Your task to perform on an android device: move a message to another label in the gmail app Image 0: 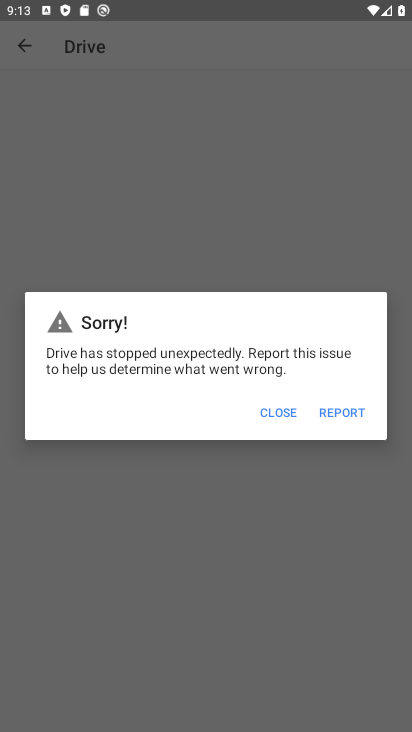
Step 0: press home button
Your task to perform on an android device: move a message to another label in the gmail app Image 1: 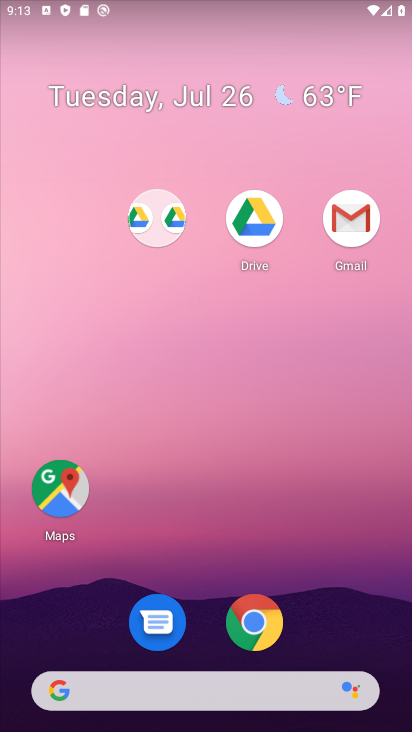
Step 1: click (355, 247)
Your task to perform on an android device: move a message to another label in the gmail app Image 2: 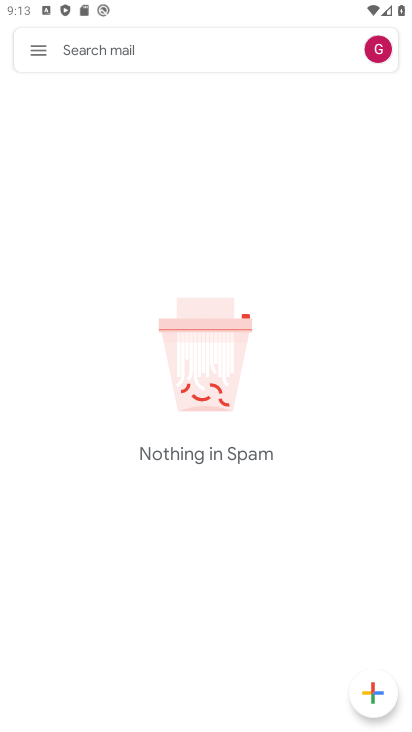
Step 2: click (39, 58)
Your task to perform on an android device: move a message to another label in the gmail app Image 3: 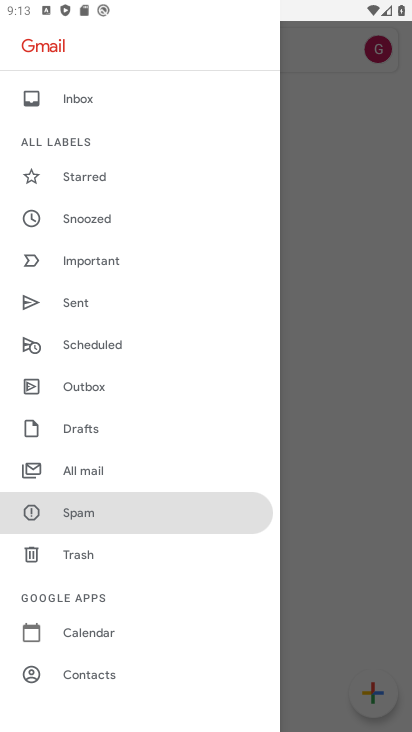
Step 3: click (51, 91)
Your task to perform on an android device: move a message to another label in the gmail app Image 4: 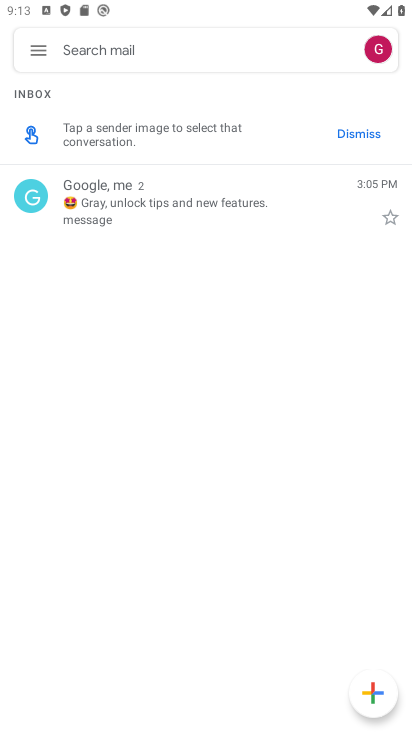
Step 4: click (327, 203)
Your task to perform on an android device: move a message to another label in the gmail app Image 5: 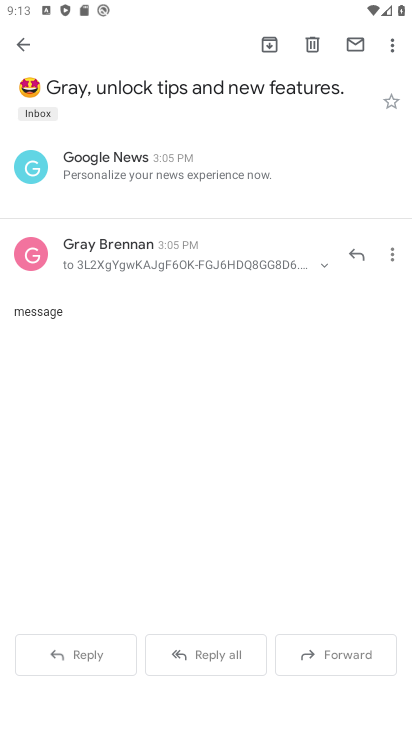
Step 5: click (396, 46)
Your task to perform on an android device: move a message to another label in the gmail app Image 6: 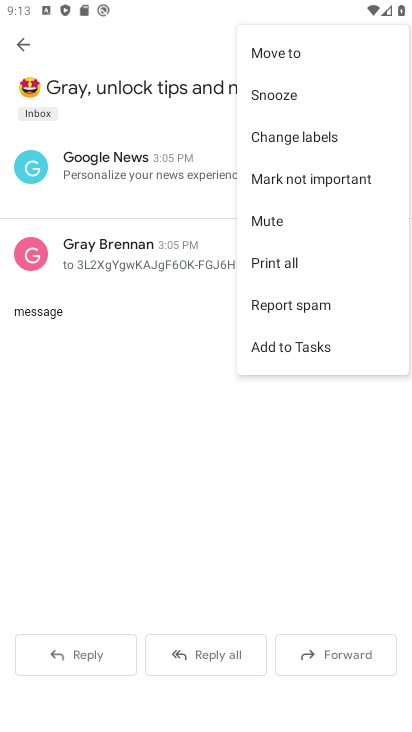
Step 6: click (258, 60)
Your task to perform on an android device: move a message to another label in the gmail app Image 7: 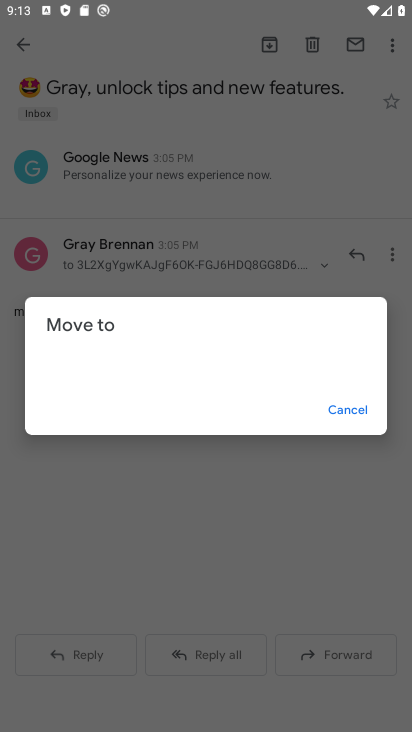
Step 7: click (169, 355)
Your task to perform on an android device: move a message to another label in the gmail app Image 8: 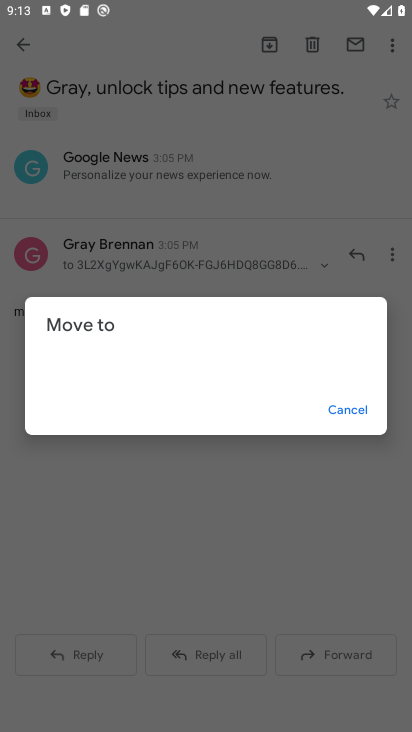
Step 8: task complete